Your task to perform on an android device: Open Youtube and go to "Your channel" Image 0: 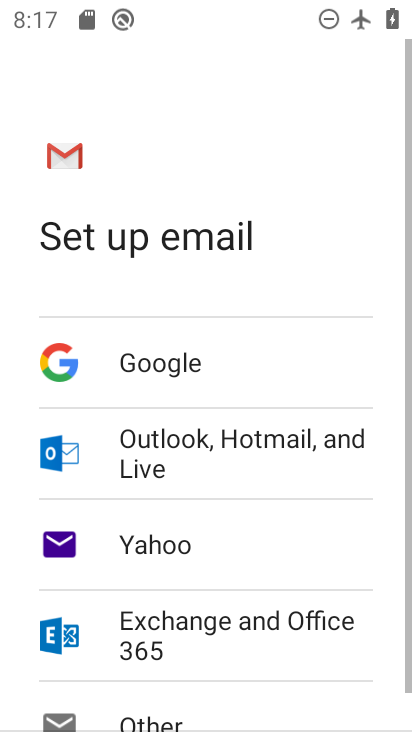
Step 0: press home button
Your task to perform on an android device: Open Youtube and go to "Your channel" Image 1: 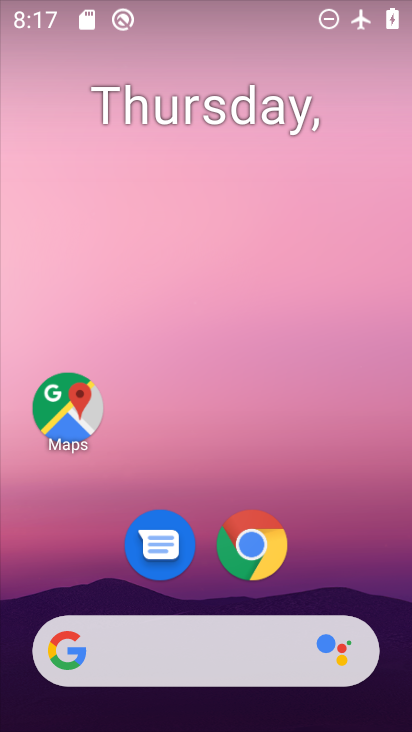
Step 1: drag from (324, 564) to (389, 18)
Your task to perform on an android device: Open Youtube and go to "Your channel" Image 2: 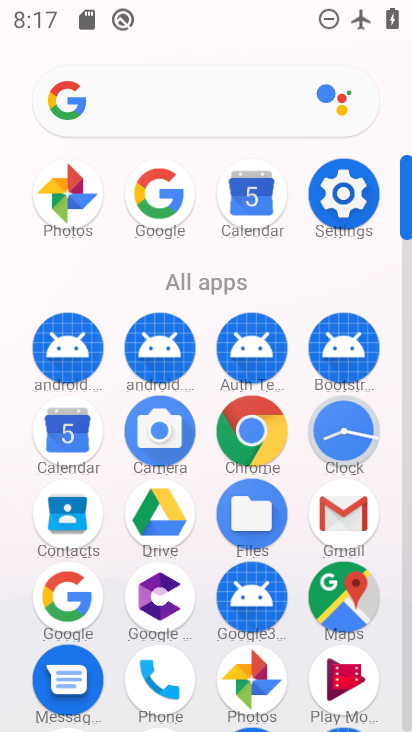
Step 2: drag from (302, 484) to (242, 169)
Your task to perform on an android device: Open Youtube and go to "Your channel" Image 3: 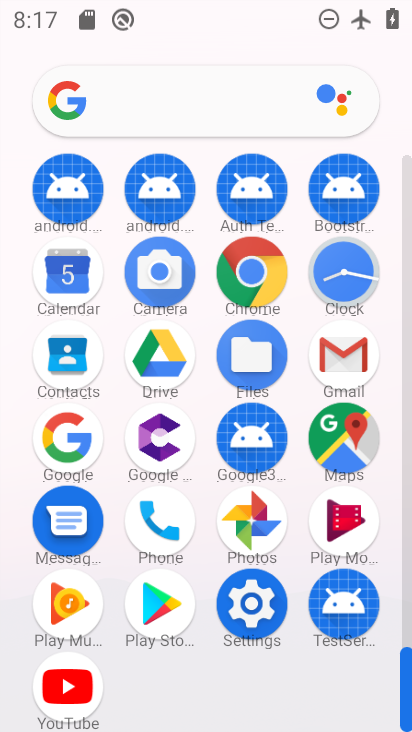
Step 3: click (69, 685)
Your task to perform on an android device: Open Youtube and go to "Your channel" Image 4: 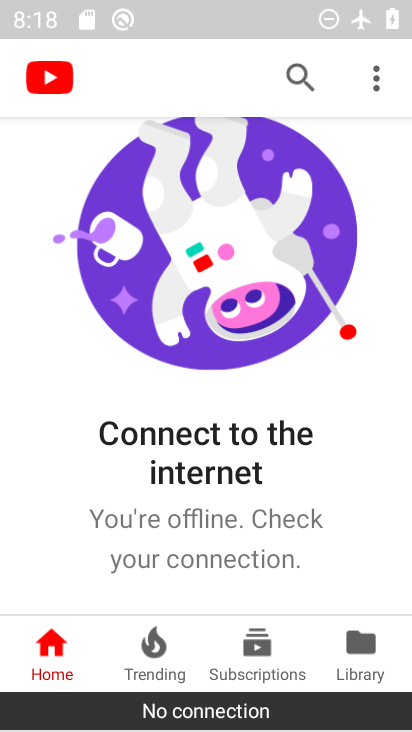
Step 4: click (378, 77)
Your task to perform on an android device: Open Youtube and go to "Your channel" Image 5: 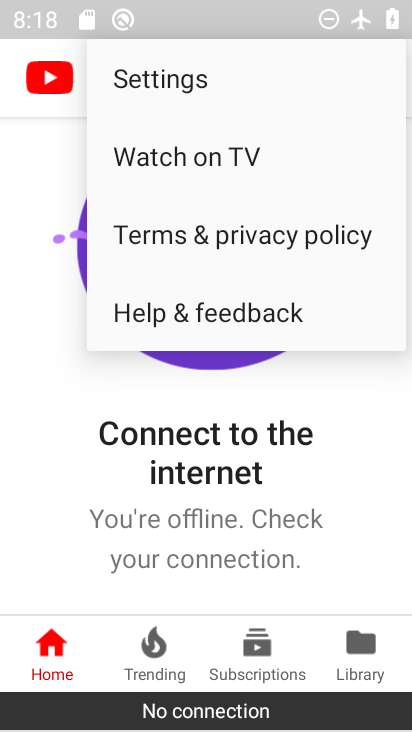
Step 5: click (57, 305)
Your task to perform on an android device: Open Youtube and go to "Your channel" Image 6: 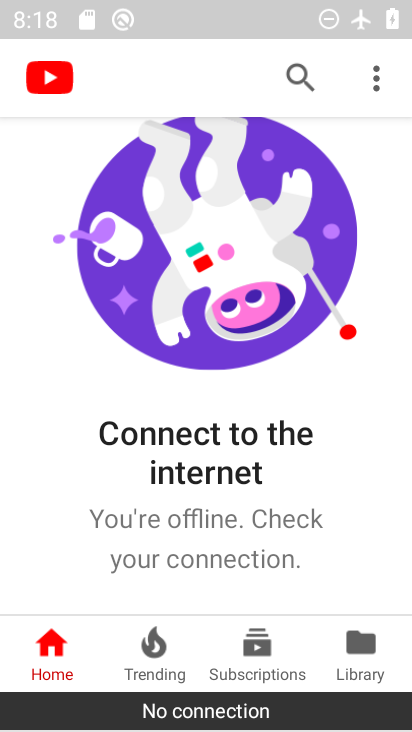
Step 6: click (42, 86)
Your task to perform on an android device: Open Youtube and go to "Your channel" Image 7: 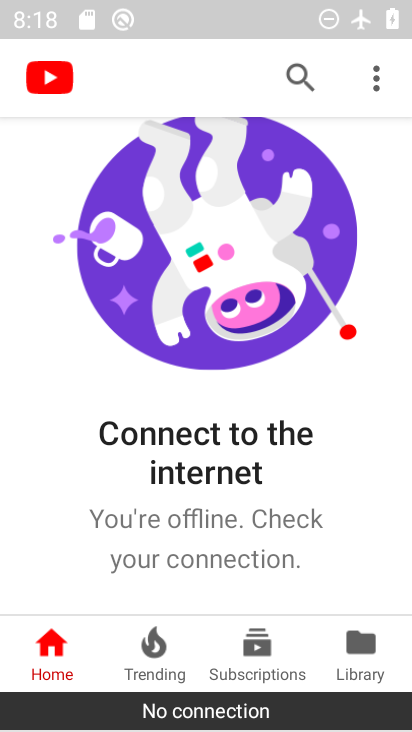
Step 7: click (374, 654)
Your task to perform on an android device: Open Youtube and go to "Your channel" Image 8: 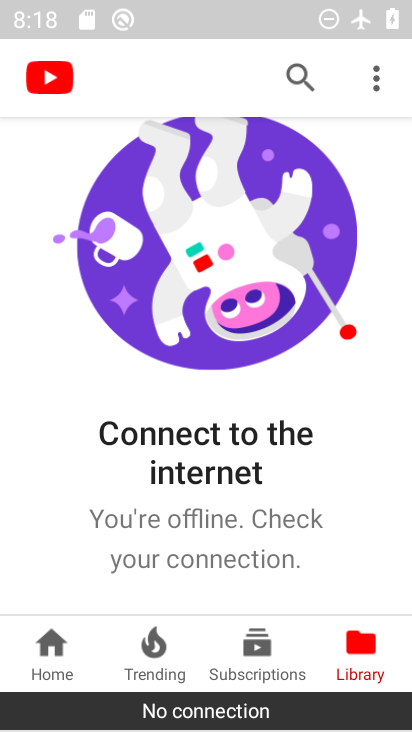
Step 8: click (254, 646)
Your task to perform on an android device: Open Youtube and go to "Your channel" Image 9: 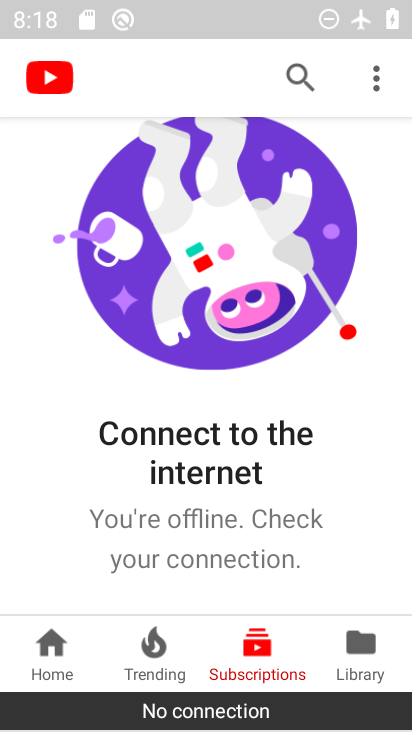
Step 9: click (153, 653)
Your task to perform on an android device: Open Youtube and go to "Your channel" Image 10: 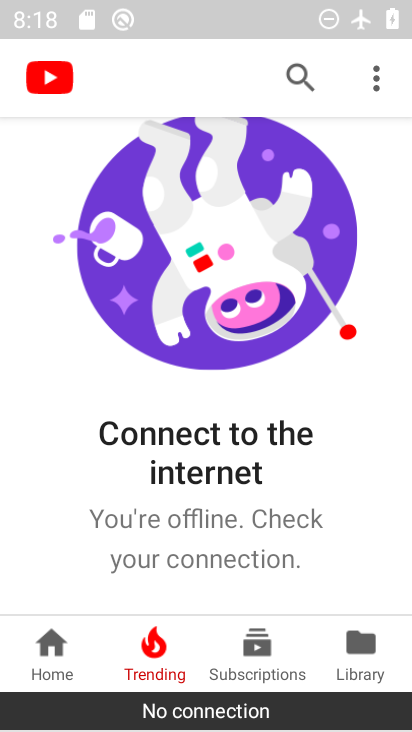
Step 10: click (57, 655)
Your task to perform on an android device: Open Youtube and go to "Your channel" Image 11: 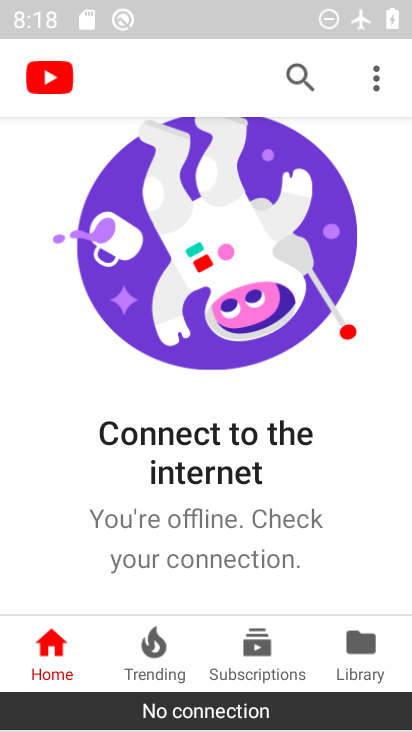
Step 11: task complete